Your task to perform on an android device: Turn on the flashlight Image 0: 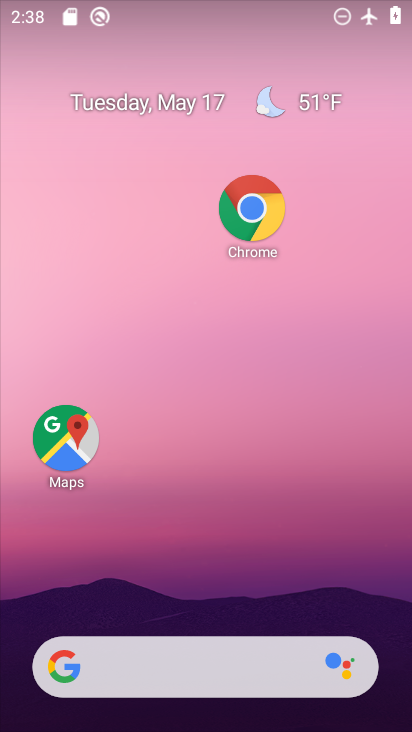
Step 0: drag from (181, 634) to (351, 77)
Your task to perform on an android device: Turn on the flashlight Image 1: 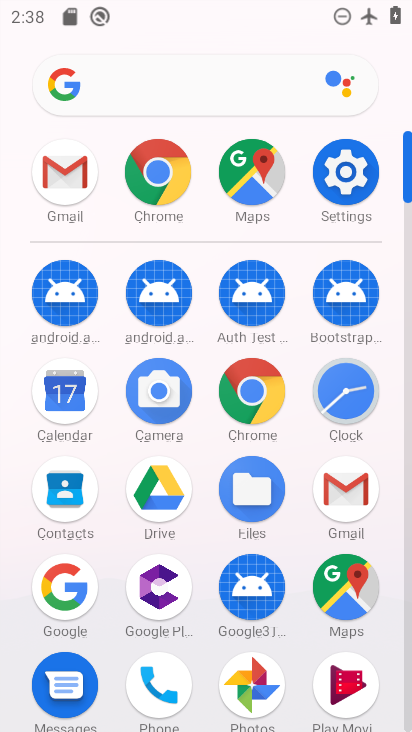
Step 1: click (353, 178)
Your task to perform on an android device: Turn on the flashlight Image 2: 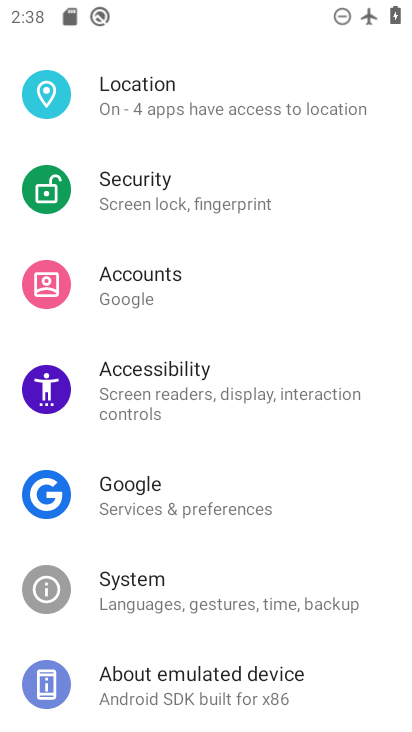
Step 2: task complete